Your task to perform on an android device: turn on wifi Image 0: 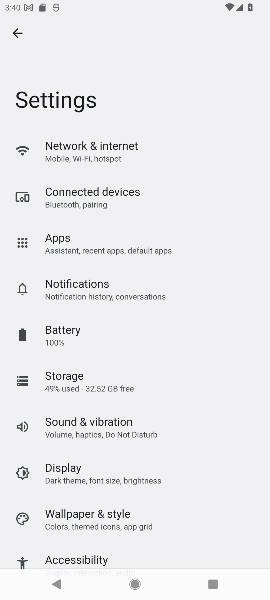
Step 0: click (100, 162)
Your task to perform on an android device: turn on wifi Image 1: 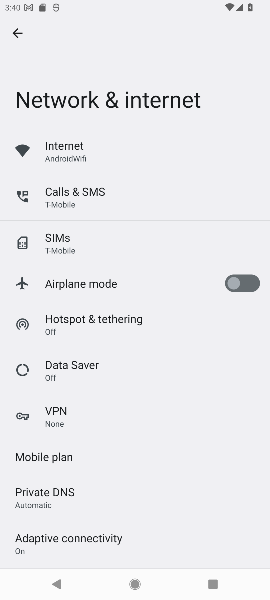
Step 1: click (54, 151)
Your task to perform on an android device: turn on wifi Image 2: 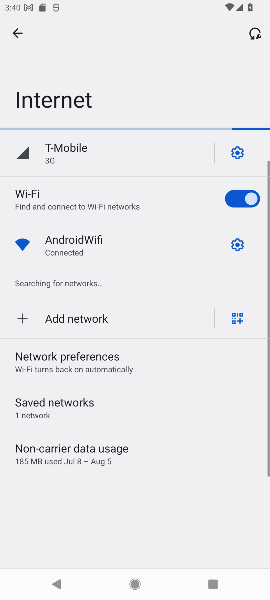
Step 2: click (87, 241)
Your task to perform on an android device: turn on wifi Image 3: 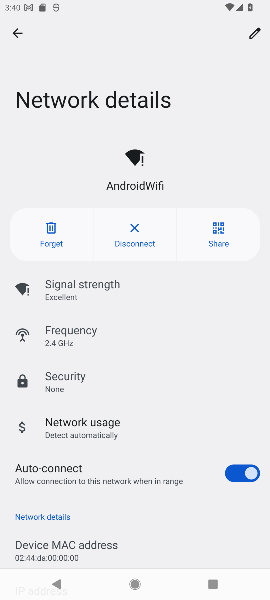
Step 3: task complete